Your task to perform on an android device: turn off sleep mode Image 0: 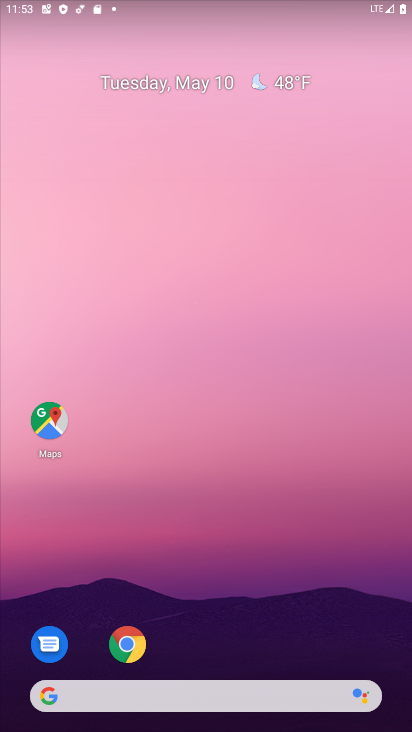
Step 0: drag from (205, 594) to (392, 63)
Your task to perform on an android device: turn off sleep mode Image 1: 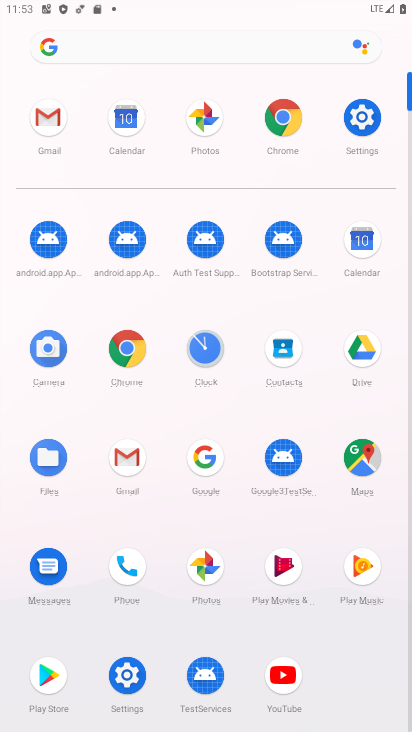
Step 1: click (373, 149)
Your task to perform on an android device: turn off sleep mode Image 2: 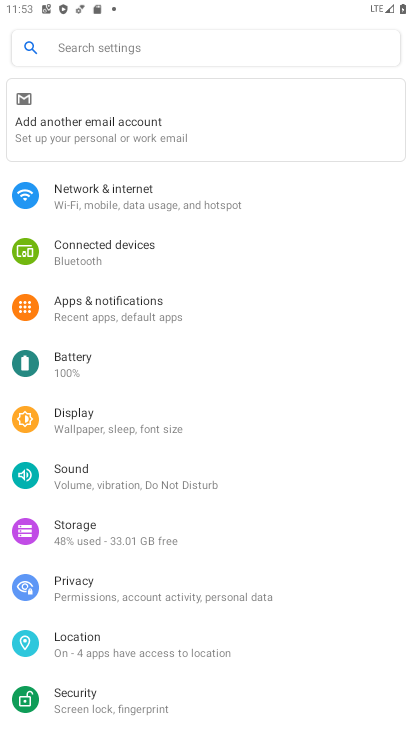
Step 2: click (176, 56)
Your task to perform on an android device: turn off sleep mode Image 3: 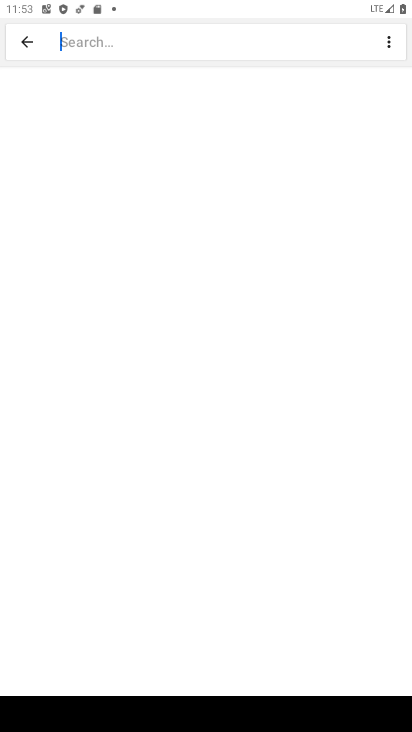
Step 3: type "sleep mode"
Your task to perform on an android device: turn off sleep mode Image 4: 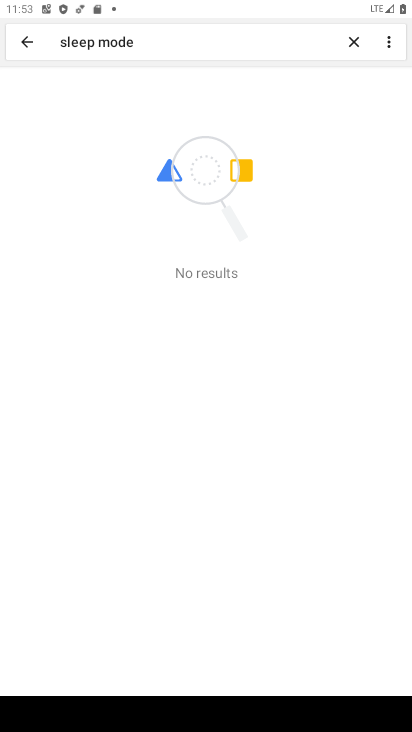
Step 4: task complete